Your task to perform on an android device: change the clock display to digital Image 0: 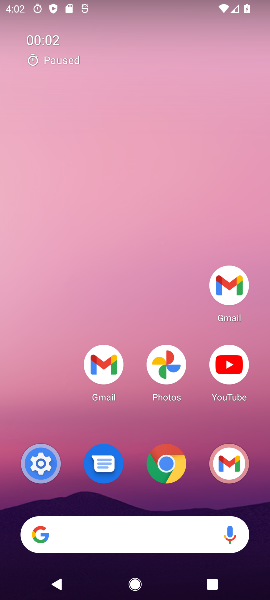
Step 0: drag from (178, 589) to (149, 123)
Your task to perform on an android device: change the clock display to digital Image 1: 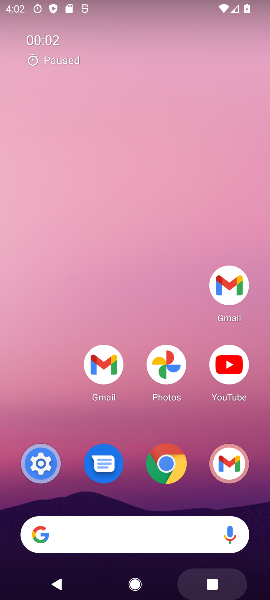
Step 1: drag from (193, 480) to (140, 111)
Your task to perform on an android device: change the clock display to digital Image 2: 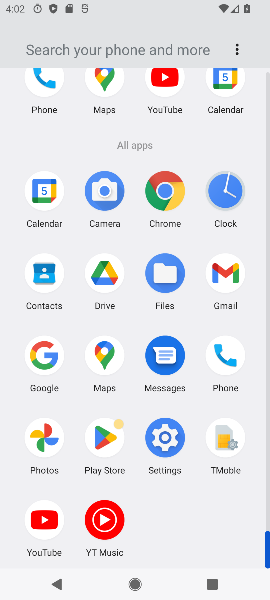
Step 2: click (217, 191)
Your task to perform on an android device: change the clock display to digital Image 3: 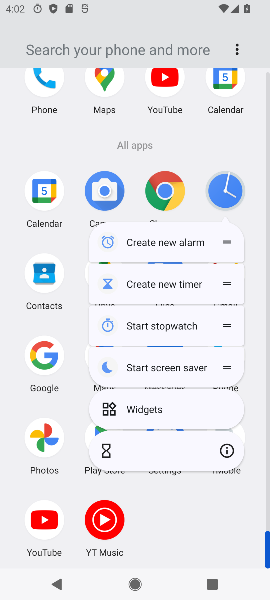
Step 3: click (215, 193)
Your task to perform on an android device: change the clock display to digital Image 4: 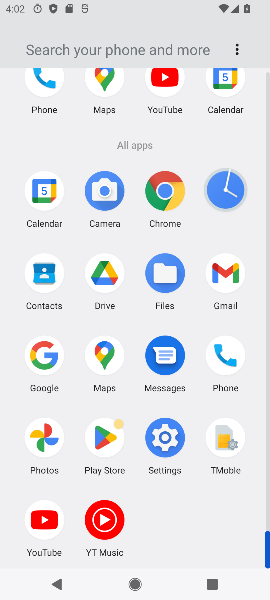
Step 4: click (215, 192)
Your task to perform on an android device: change the clock display to digital Image 5: 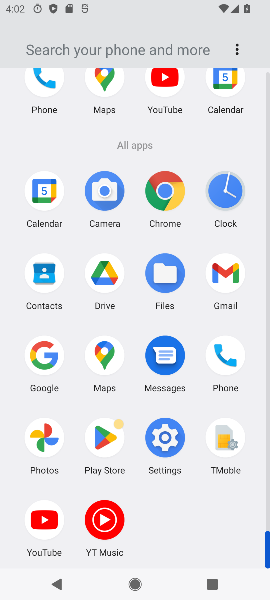
Step 5: click (218, 191)
Your task to perform on an android device: change the clock display to digital Image 6: 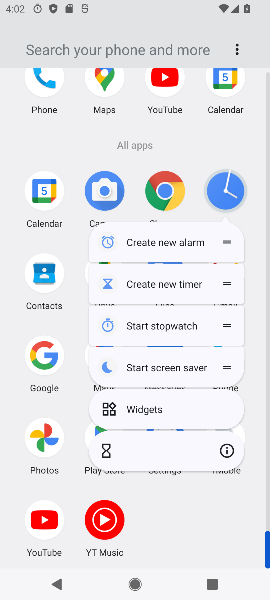
Step 6: click (220, 190)
Your task to perform on an android device: change the clock display to digital Image 7: 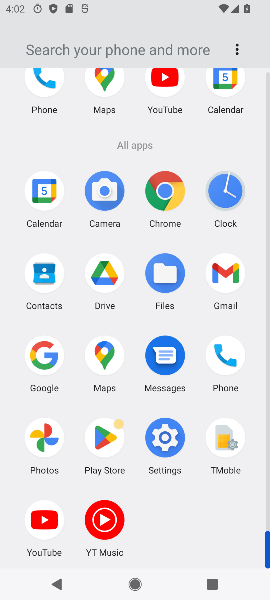
Step 7: click (222, 185)
Your task to perform on an android device: change the clock display to digital Image 8: 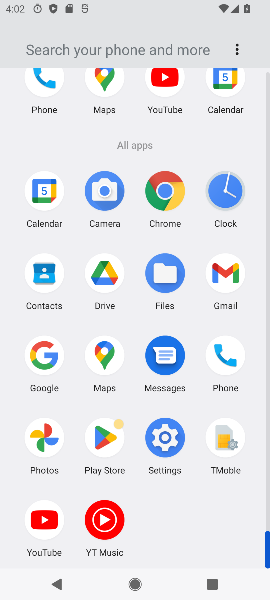
Step 8: click (222, 185)
Your task to perform on an android device: change the clock display to digital Image 9: 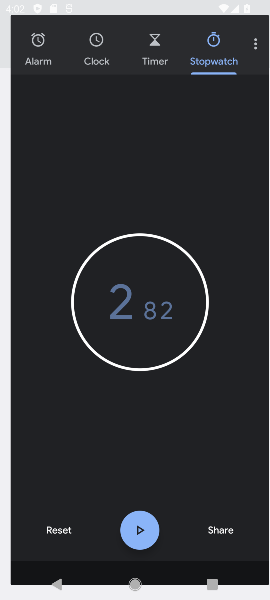
Step 9: click (223, 183)
Your task to perform on an android device: change the clock display to digital Image 10: 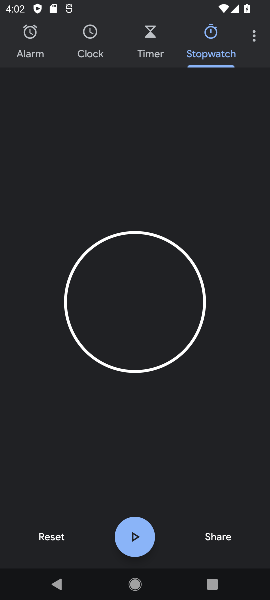
Step 10: click (250, 31)
Your task to perform on an android device: change the clock display to digital Image 11: 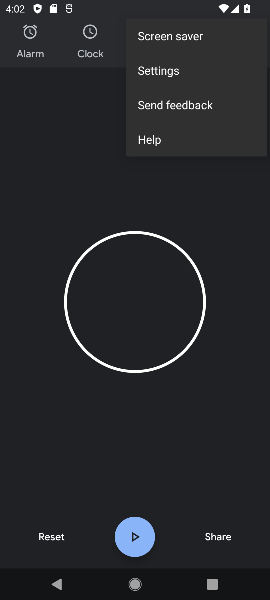
Step 11: click (175, 74)
Your task to perform on an android device: change the clock display to digital Image 12: 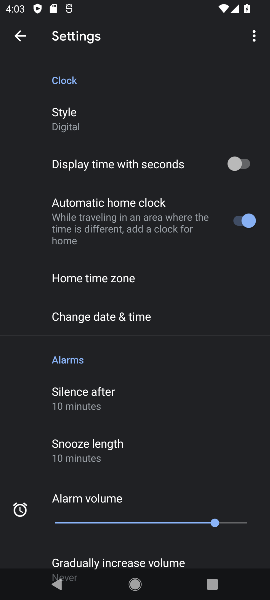
Step 12: task complete